Your task to perform on an android device: turn smart compose on in the gmail app Image 0: 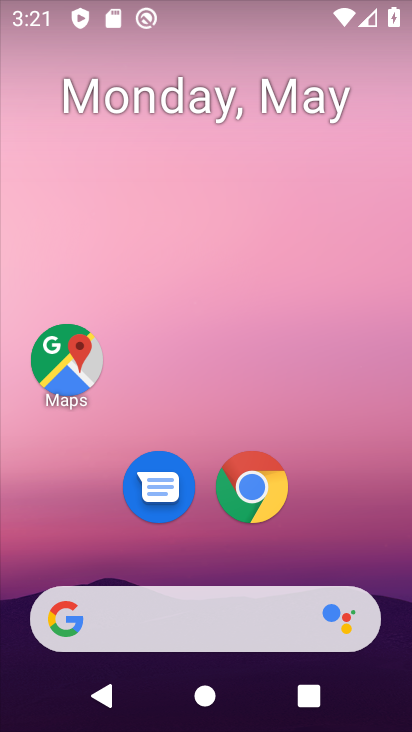
Step 0: drag from (196, 613) to (265, 243)
Your task to perform on an android device: turn smart compose on in the gmail app Image 1: 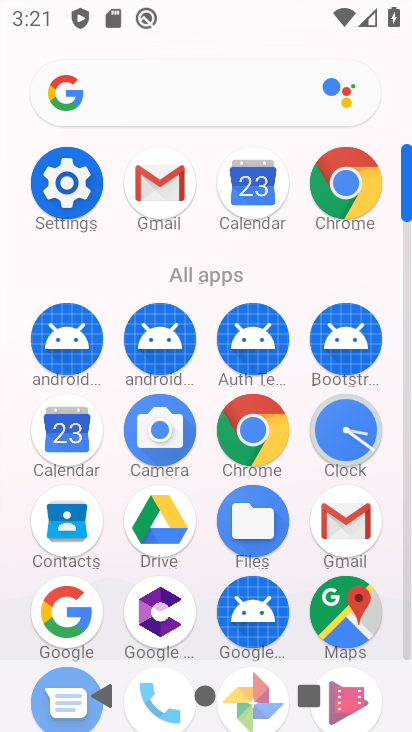
Step 1: click (179, 196)
Your task to perform on an android device: turn smart compose on in the gmail app Image 2: 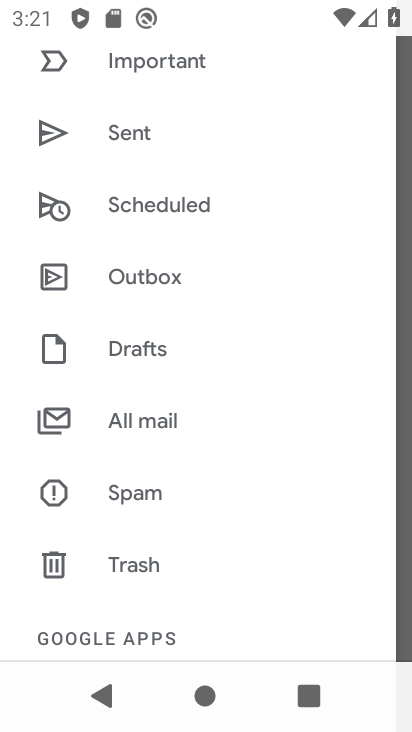
Step 2: drag from (129, 636) to (182, 229)
Your task to perform on an android device: turn smart compose on in the gmail app Image 3: 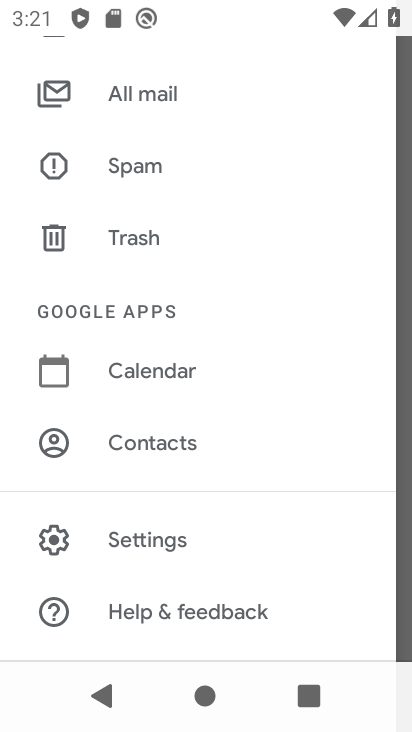
Step 3: click (160, 534)
Your task to perform on an android device: turn smart compose on in the gmail app Image 4: 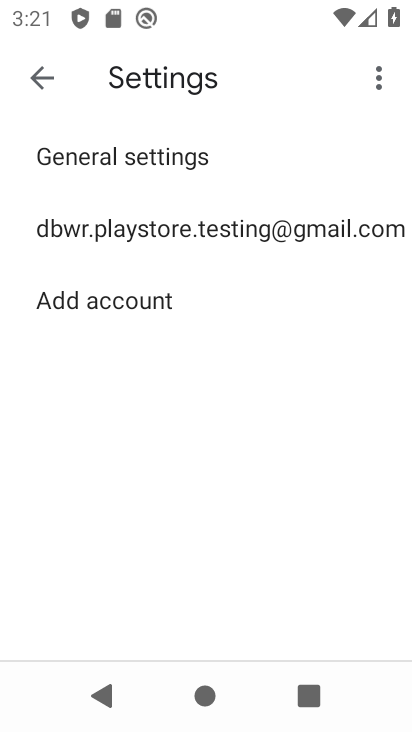
Step 4: click (119, 225)
Your task to perform on an android device: turn smart compose on in the gmail app Image 5: 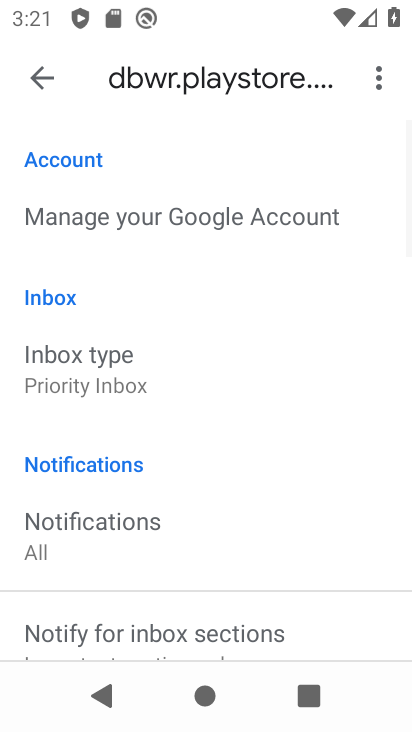
Step 5: task complete